Your task to perform on an android device: Search for vegetarian restaurants on Maps Image 0: 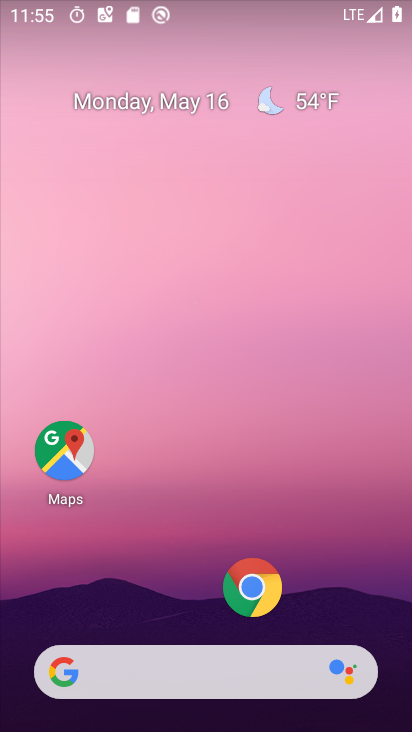
Step 0: click (87, 459)
Your task to perform on an android device: Search for vegetarian restaurants on Maps Image 1: 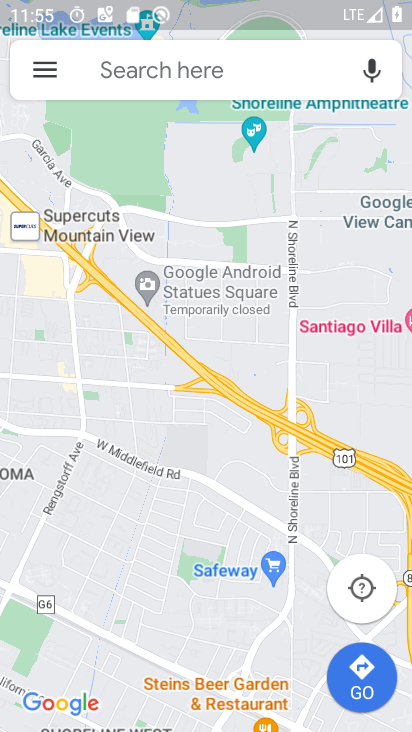
Step 1: click (170, 67)
Your task to perform on an android device: Search for vegetarian restaurants on Maps Image 2: 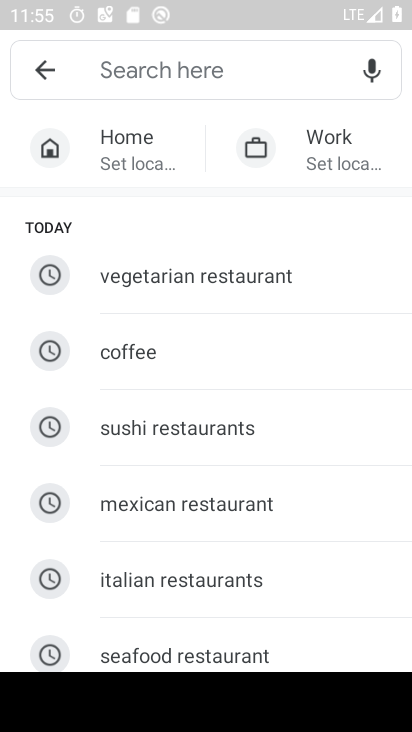
Step 2: type "Vegetarian restaurants"
Your task to perform on an android device: Search for vegetarian restaurants on Maps Image 3: 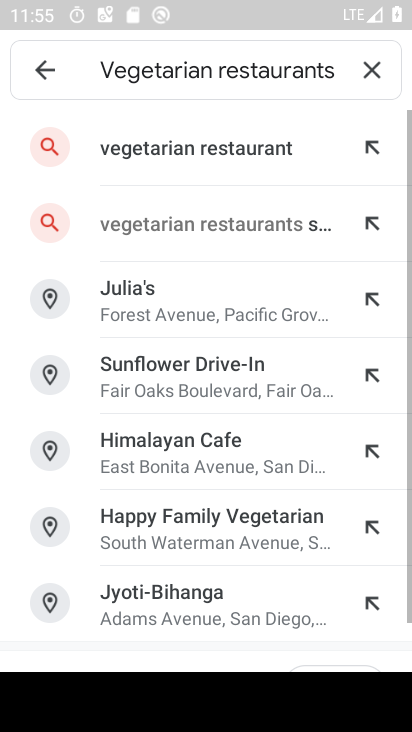
Step 3: click (226, 154)
Your task to perform on an android device: Search for vegetarian restaurants on Maps Image 4: 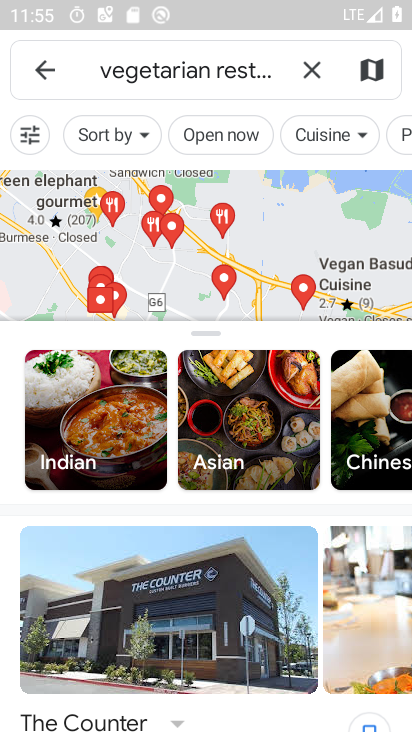
Step 4: task complete